Your task to perform on an android device: check battery use Image 0: 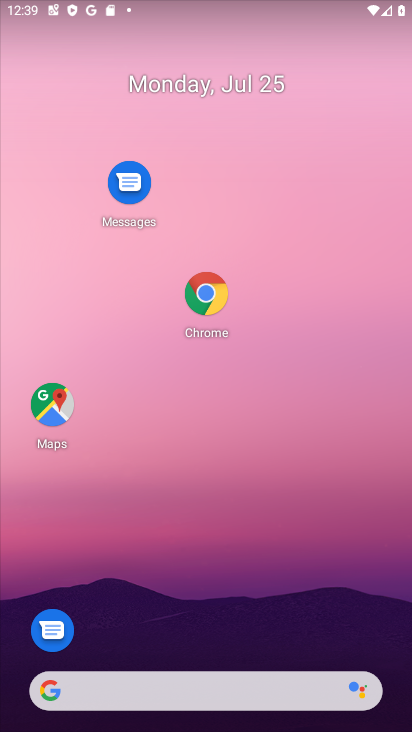
Step 0: drag from (309, 571) to (335, 61)
Your task to perform on an android device: check battery use Image 1: 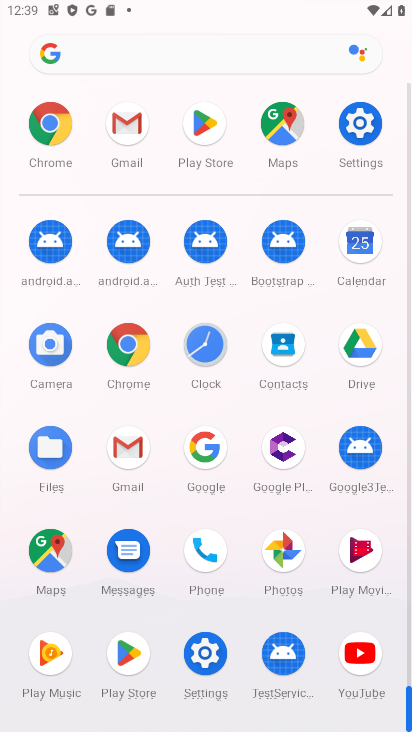
Step 1: click (193, 655)
Your task to perform on an android device: check battery use Image 2: 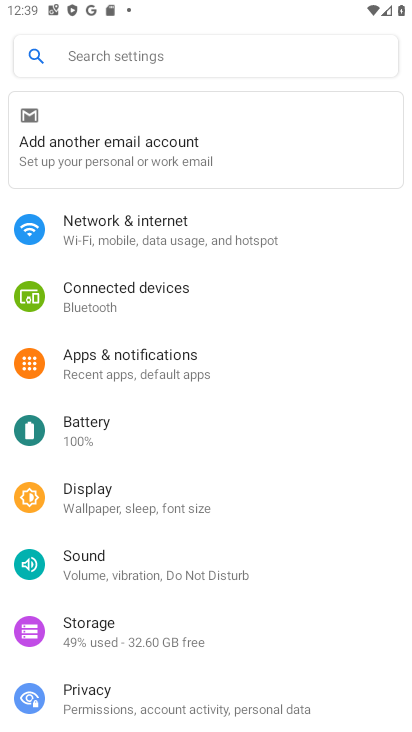
Step 2: click (102, 424)
Your task to perform on an android device: check battery use Image 3: 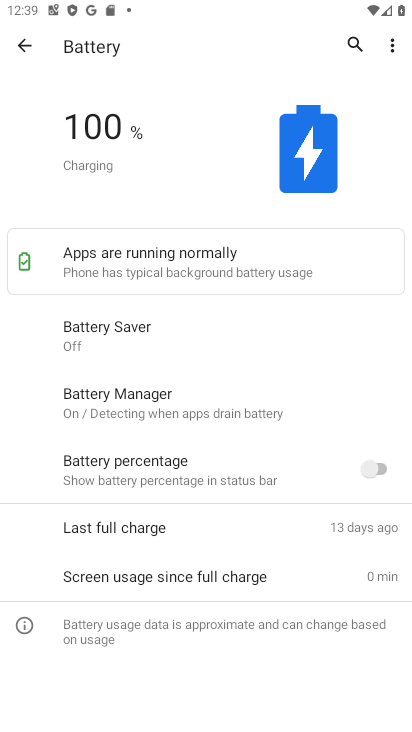
Step 3: task complete